Your task to perform on an android device: allow notifications from all sites in the chrome app Image 0: 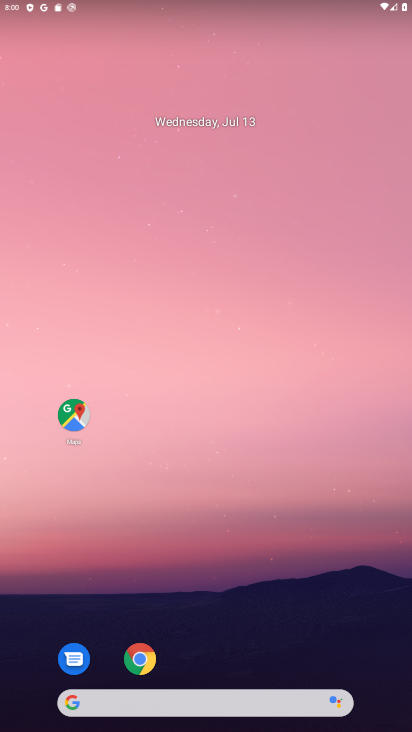
Step 0: click (134, 675)
Your task to perform on an android device: allow notifications from all sites in the chrome app Image 1: 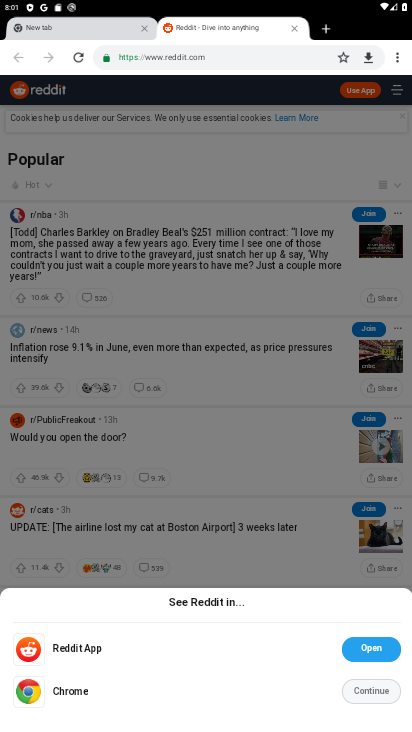
Step 1: click (393, 52)
Your task to perform on an android device: allow notifications from all sites in the chrome app Image 2: 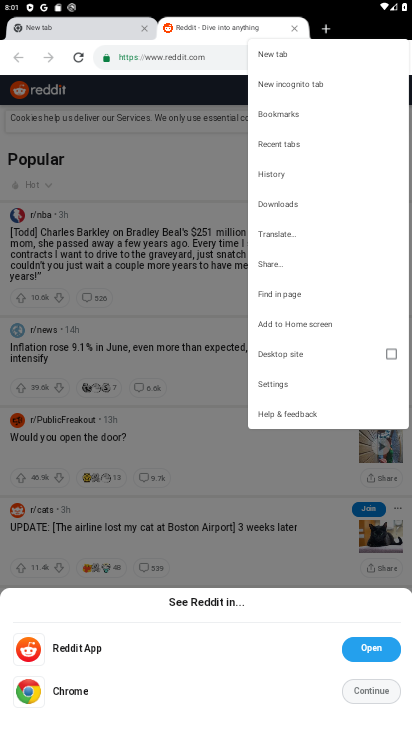
Step 2: click (291, 380)
Your task to perform on an android device: allow notifications from all sites in the chrome app Image 3: 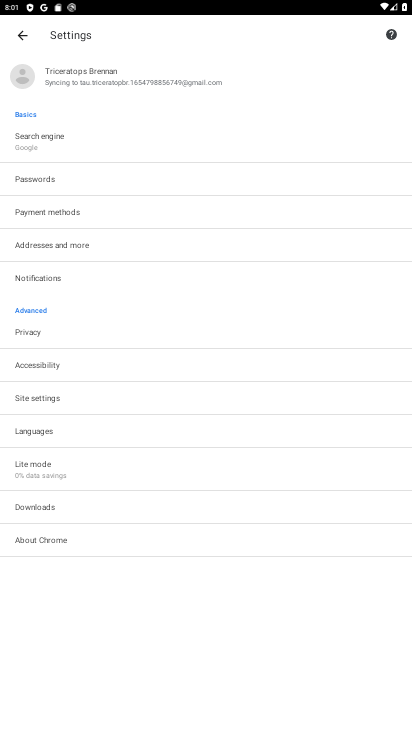
Step 3: click (104, 272)
Your task to perform on an android device: allow notifications from all sites in the chrome app Image 4: 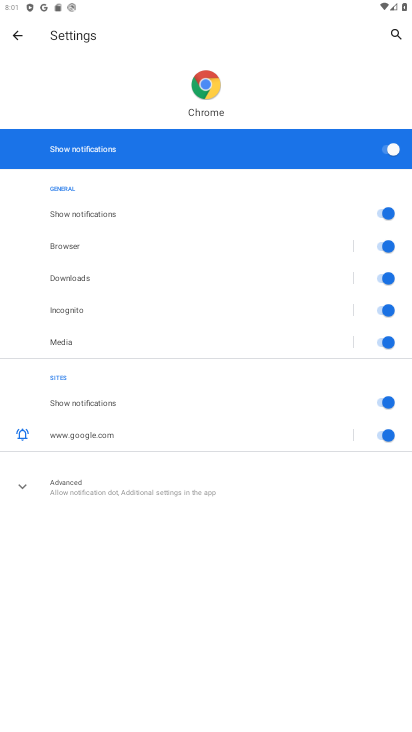
Step 4: task complete